Your task to perform on an android device: Show me popular games on the Play Store Image 0: 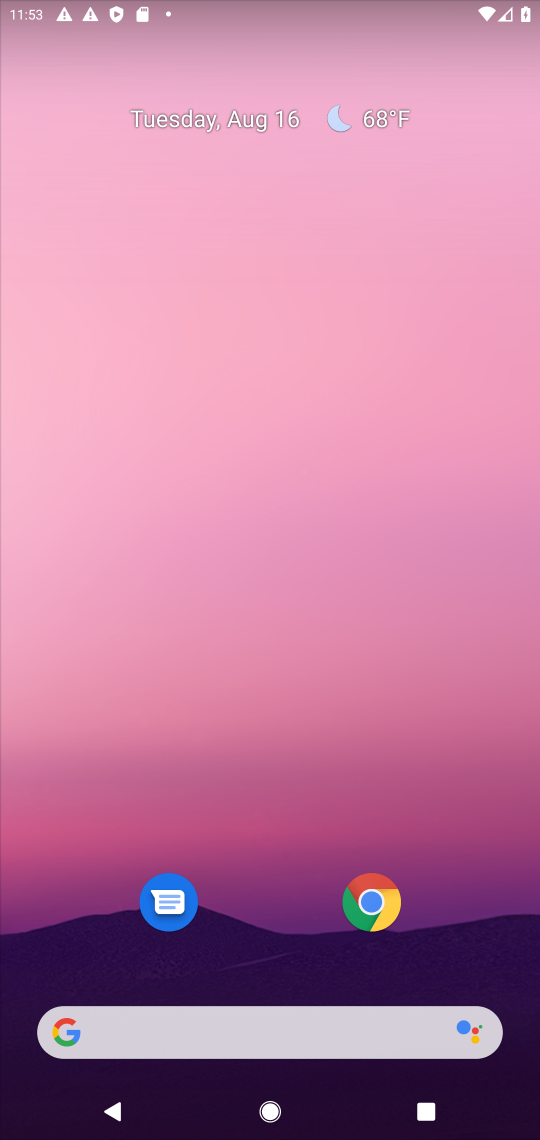
Step 0: drag from (270, 952) to (282, 170)
Your task to perform on an android device: Show me popular games on the Play Store Image 1: 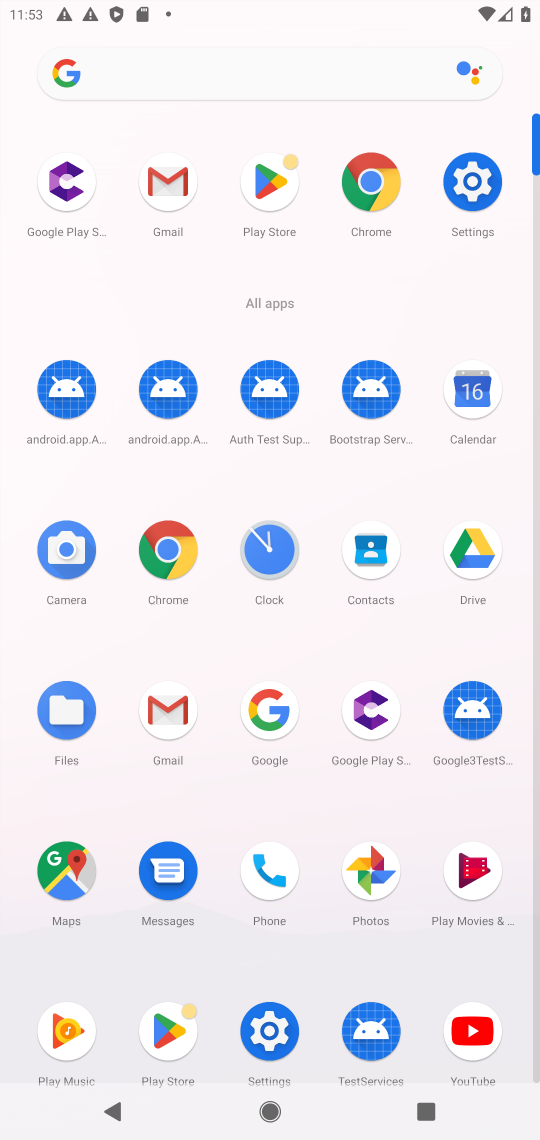
Step 1: drag from (283, 984) to (326, 346)
Your task to perform on an android device: Show me popular games on the Play Store Image 2: 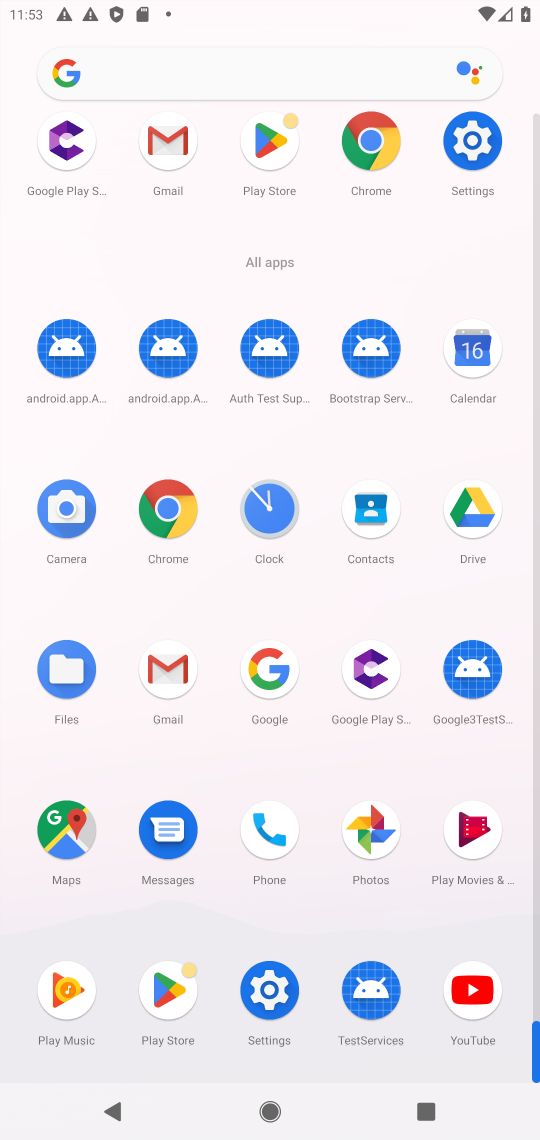
Step 2: click (156, 986)
Your task to perform on an android device: Show me popular games on the Play Store Image 3: 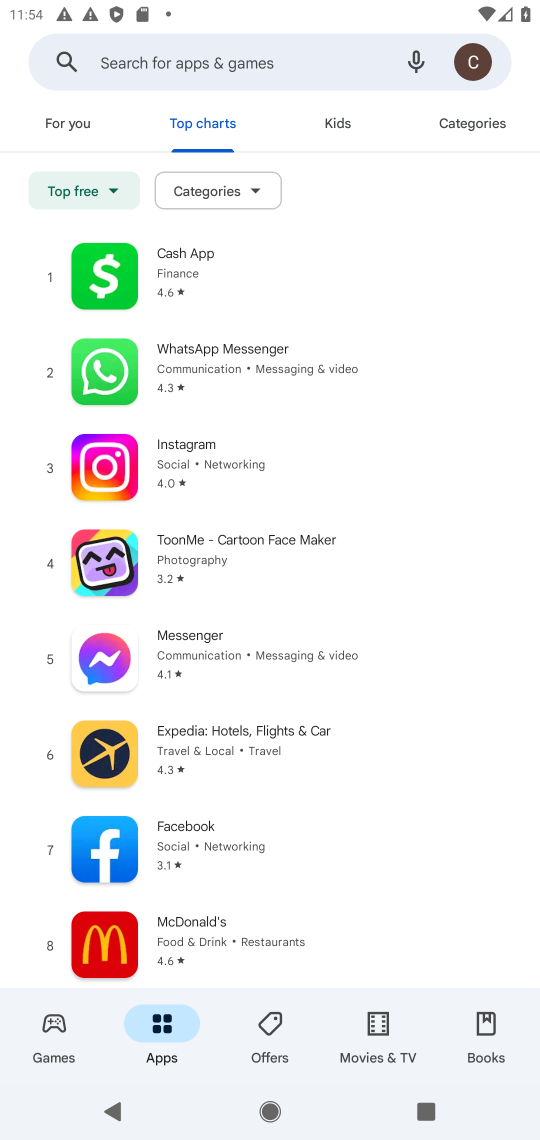
Step 3: task complete